Your task to perform on an android device: Open battery settings Image 0: 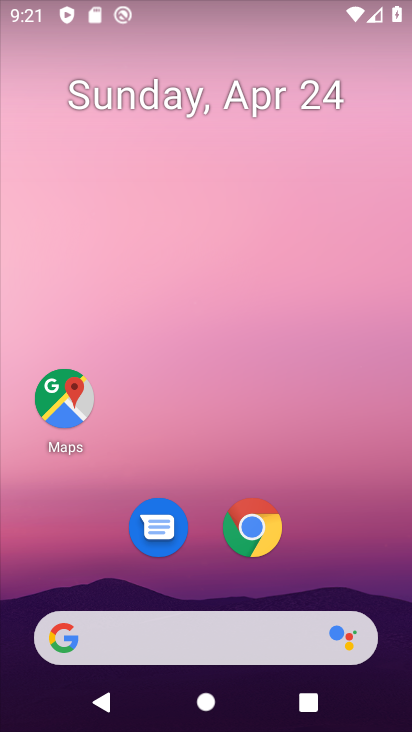
Step 0: drag from (191, 525) to (216, 113)
Your task to perform on an android device: Open battery settings Image 1: 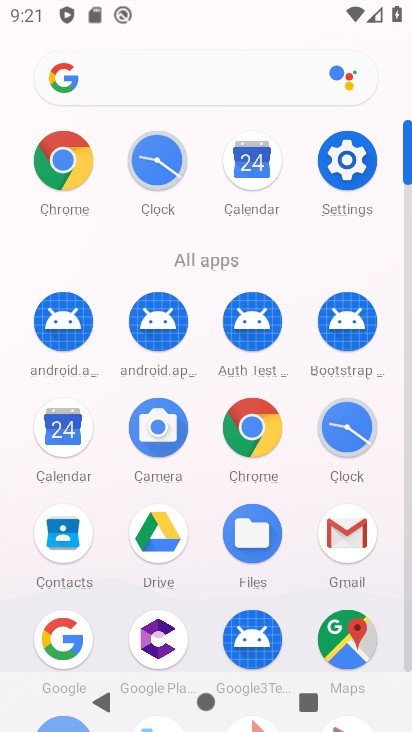
Step 1: click (350, 147)
Your task to perform on an android device: Open battery settings Image 2: 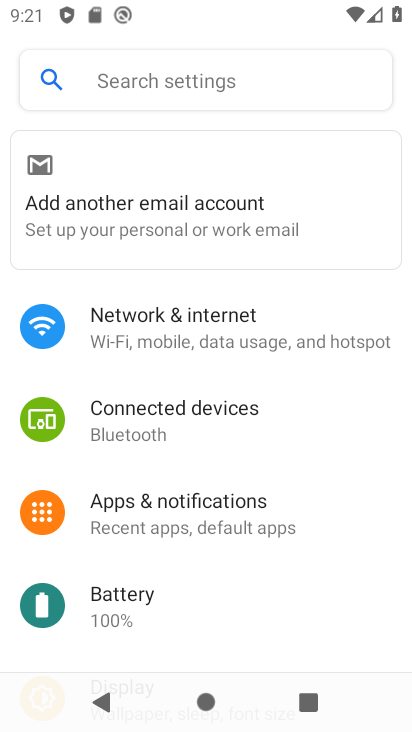
Step 2: click (141, 611)
Your task to perform on an android device: Open battery settings Image 3: 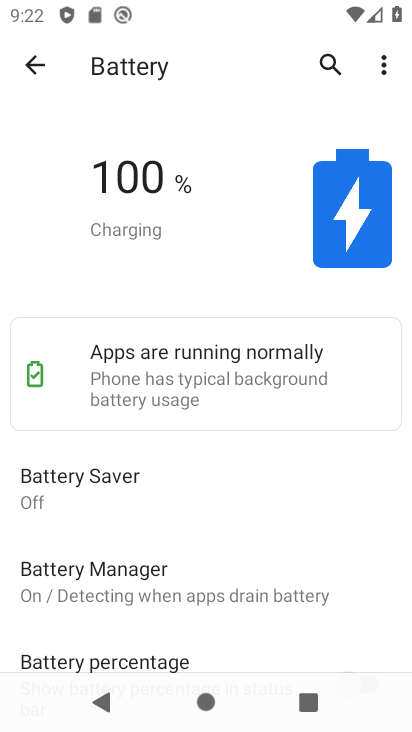
Step 3: task complete